Your task to perform on an android device: turn off picture-in-picture Image 0: 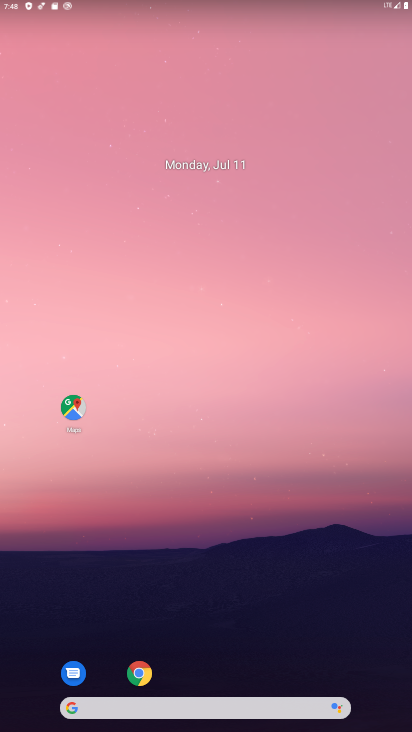
Step 0: drag from (260, 665) to (269, 599)
Your task to perform on an android device: turn off picture-in-picture Image 1: 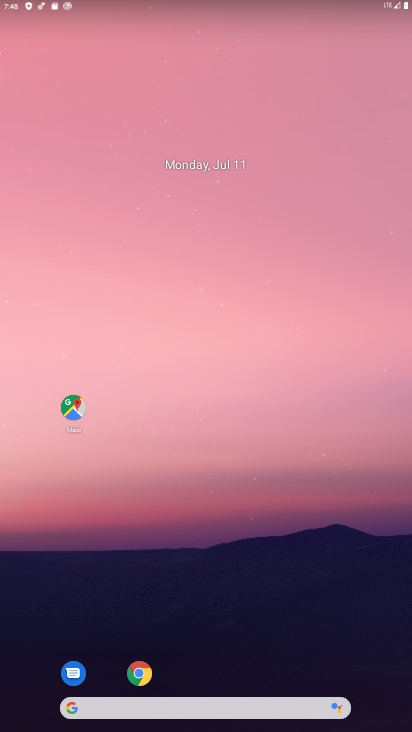
Step 1: click (141, 670)
Your task to perform on an android device: turn off picture-in-picture Image 2: 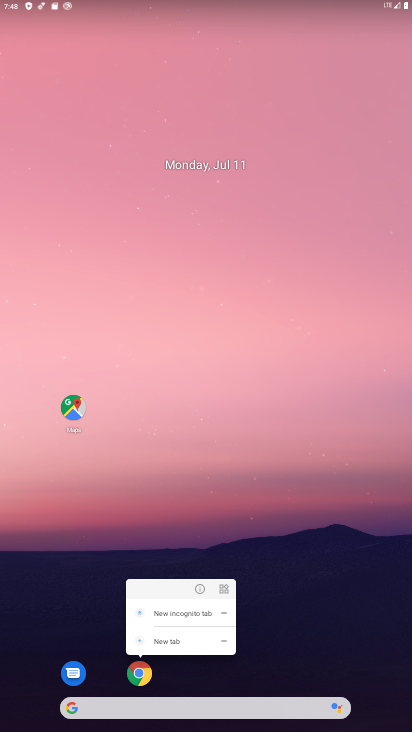
Step 2: click (195, 590)
Your task to perform on an android device: turn off picture-in-picture Image 3: 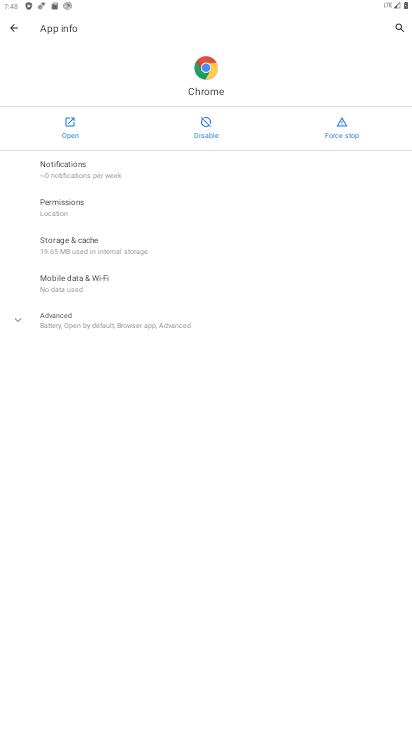
Step 3: click (37, 324)
Your task to perform on an android device: turn off picture-in-picture Image 4: 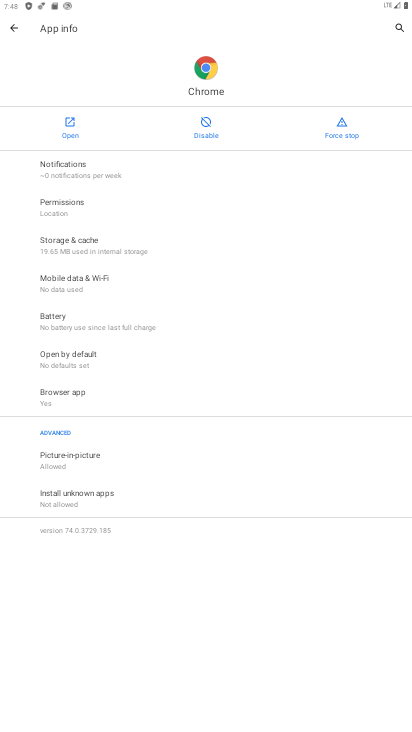
Step 4: click (75, 456)
Your task to perform on an android device: turn off picture-in-picture Image 5: 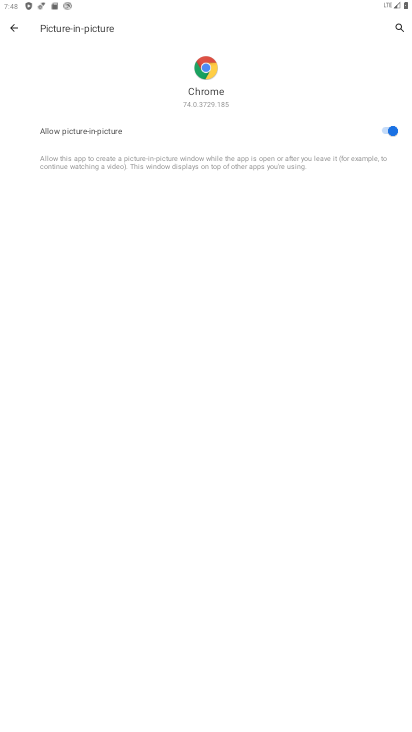
Step 5: click (395, 127)
Your task to perform on an android device: turn off picture-in-picture Image 6: 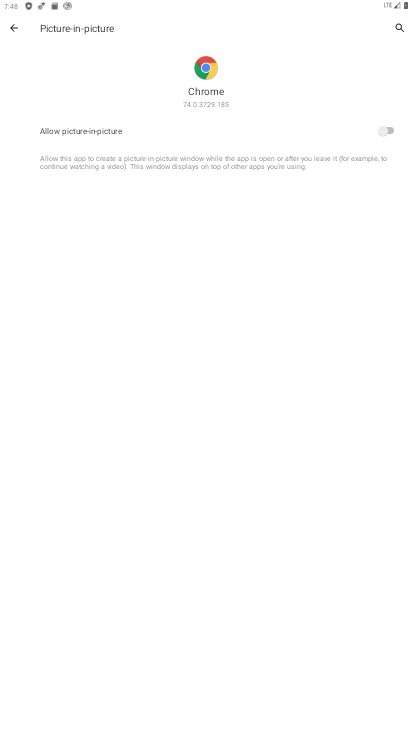
Step 6: task complete